Your task to perform on an android device: change keyboard looks Image 0: 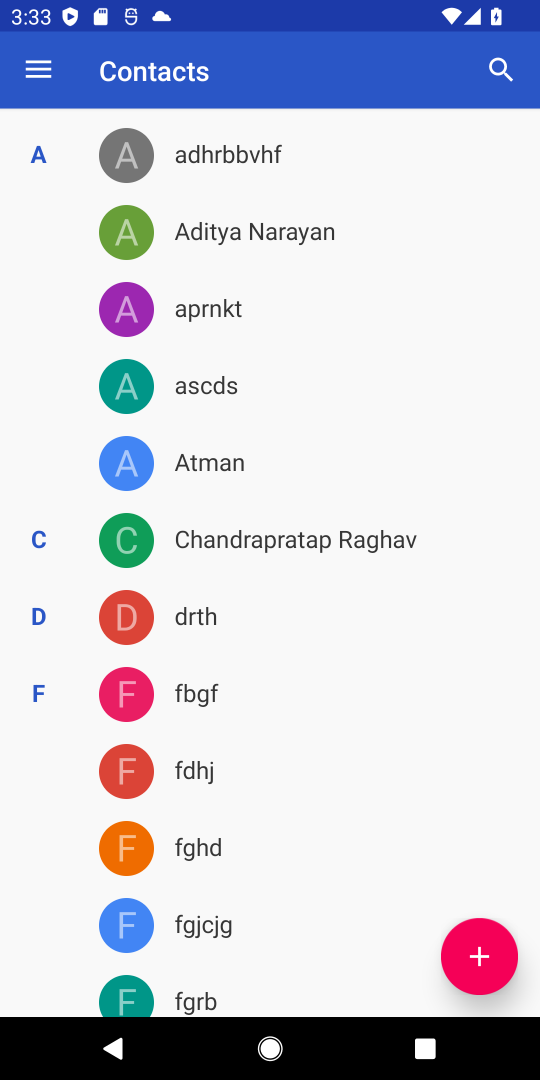
Step 0: press home button
Your task to perform on an android device: change keyboard looks Image 1: 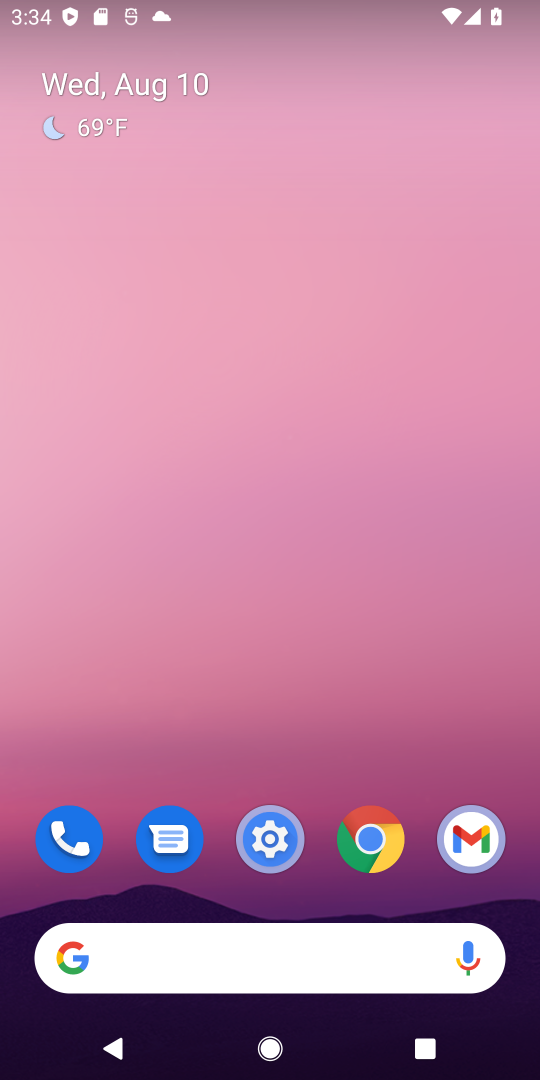
Step 1: click (275, 813)
Your task to perform on an android device: change keyboard looks Image 2: 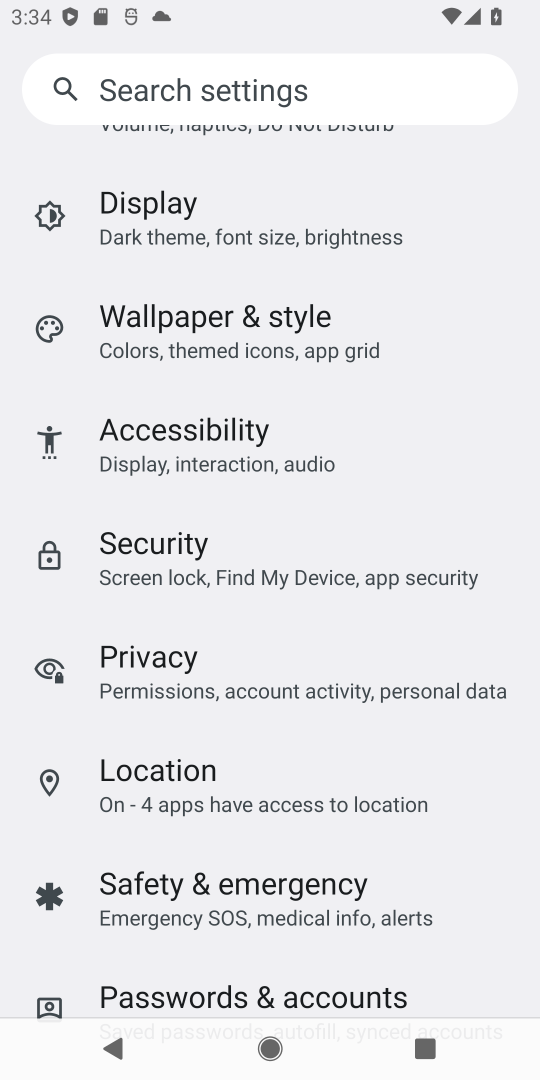
Step 2: drag from (329, 916) to (416, 316)
Your task to perform on an android device: change keyboard looks Image 3: 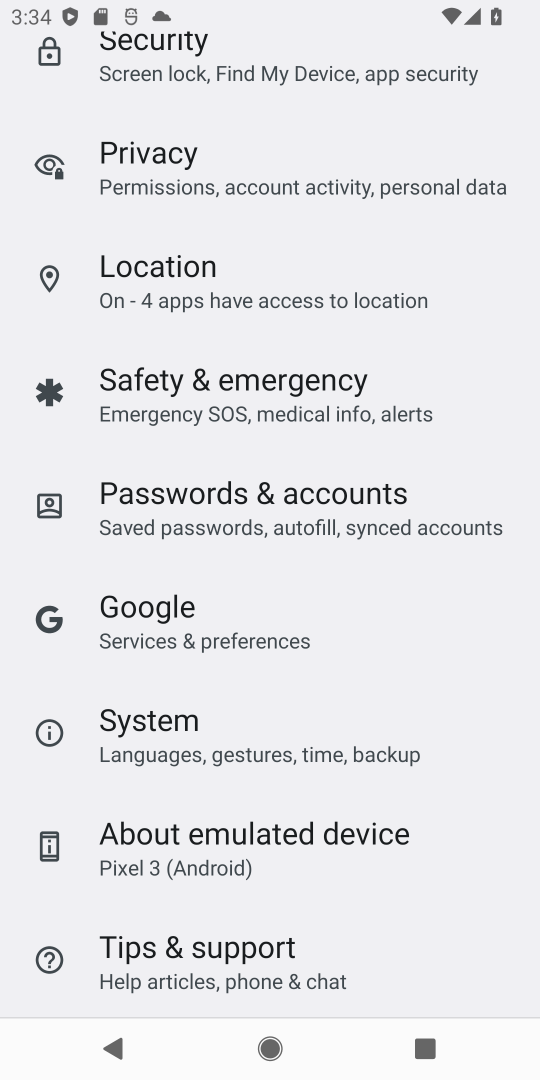
Step 3: click (243, 745)
Your task to perform on an android device: change keyboard looks Image 4: 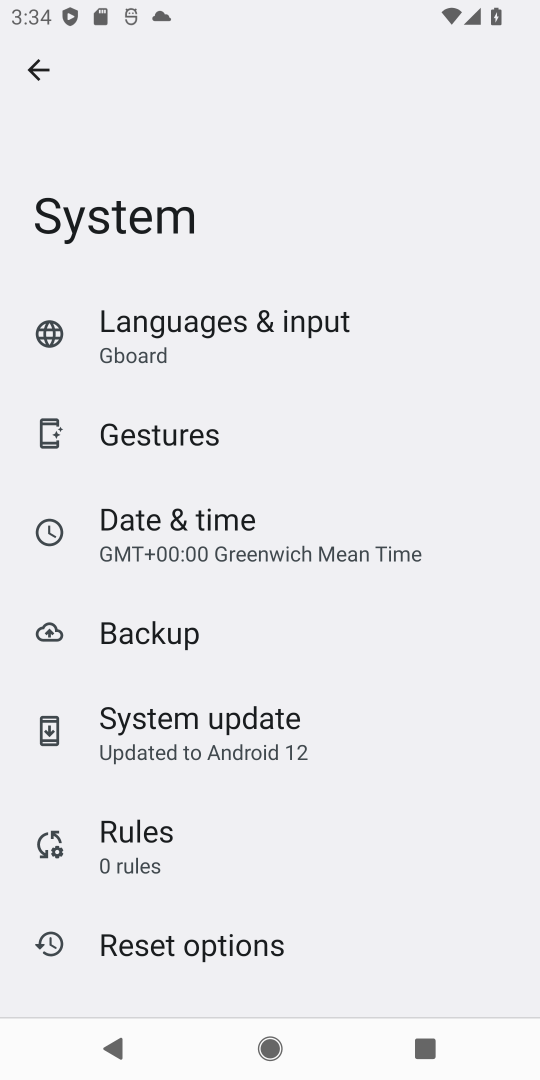
Step 4: click (235, 334)
Your task to perform on an android device: change keyboard looks Image 5: 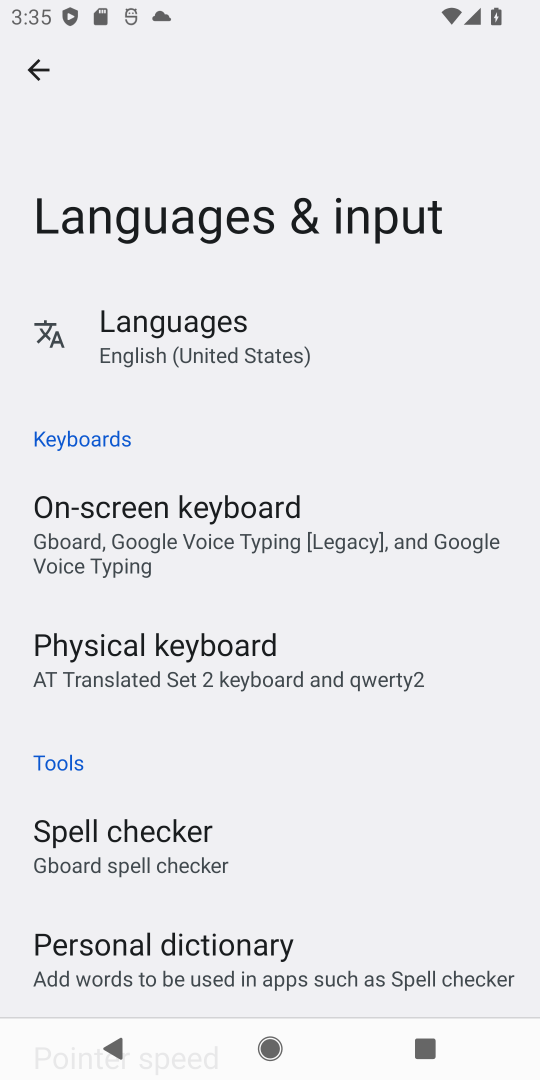
Step 5: click (213, 528)
Your task to perform on an android device: change keyboard looks Image 6: 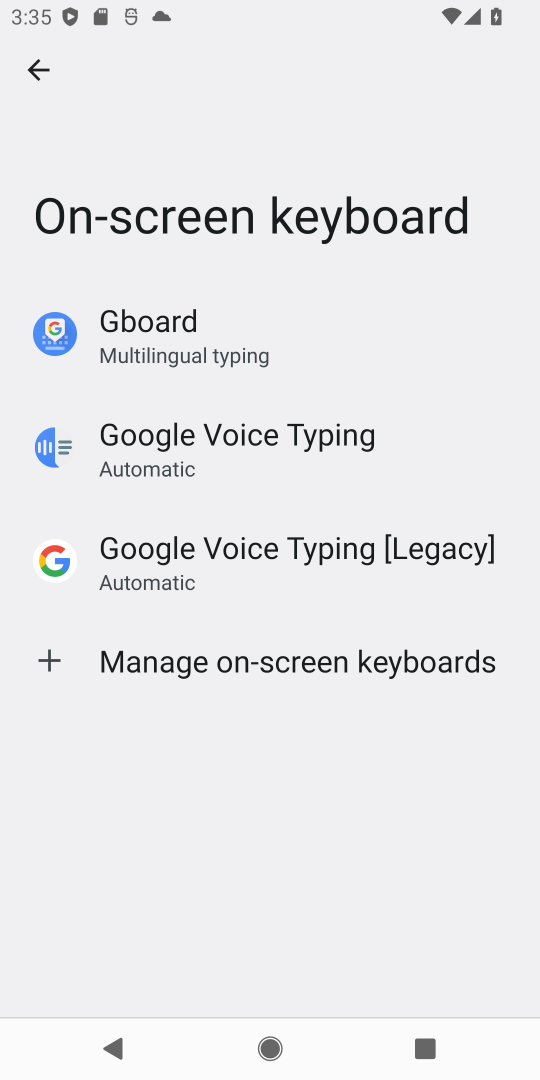
Step 6: click (157, 334)
Your task to perform on an android device: change keyboard looks Image 7: 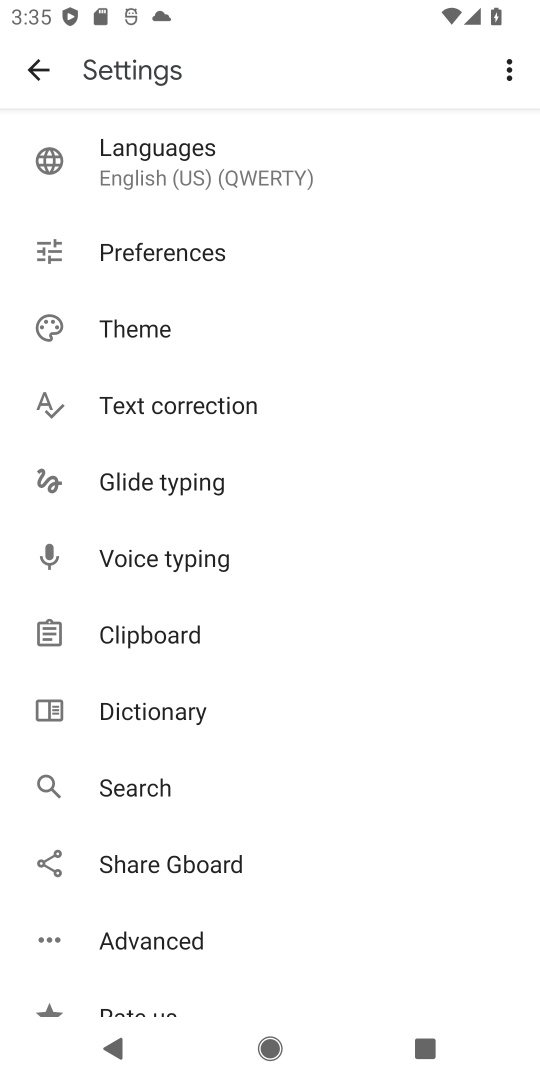
Step 7: click (153, 325)
Your task to perform on an android device: change keyboard looks Image 8: 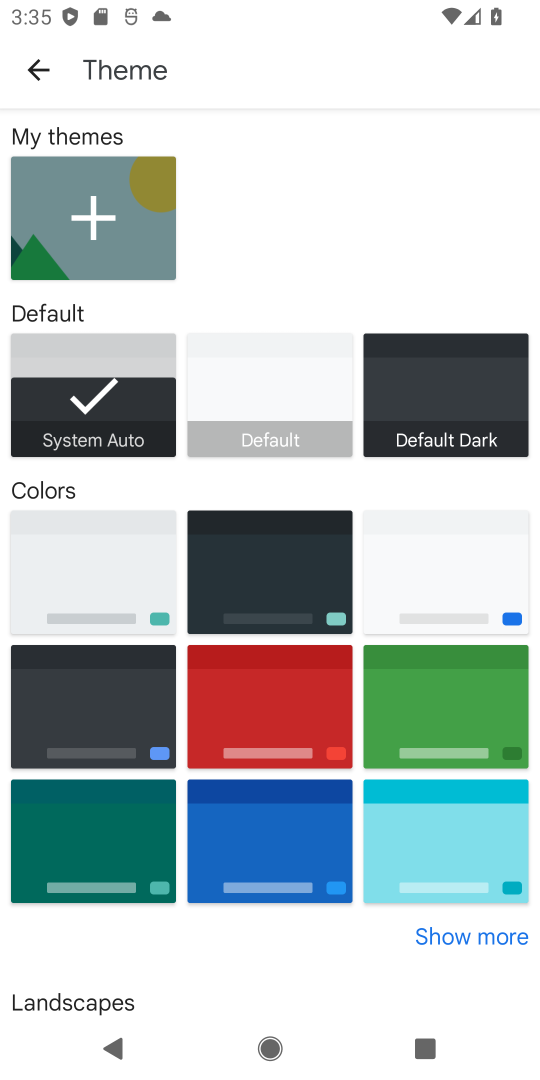
Step 8: click (427, 675)
Your task to perform on an android device: change keyboard looks Image 9: 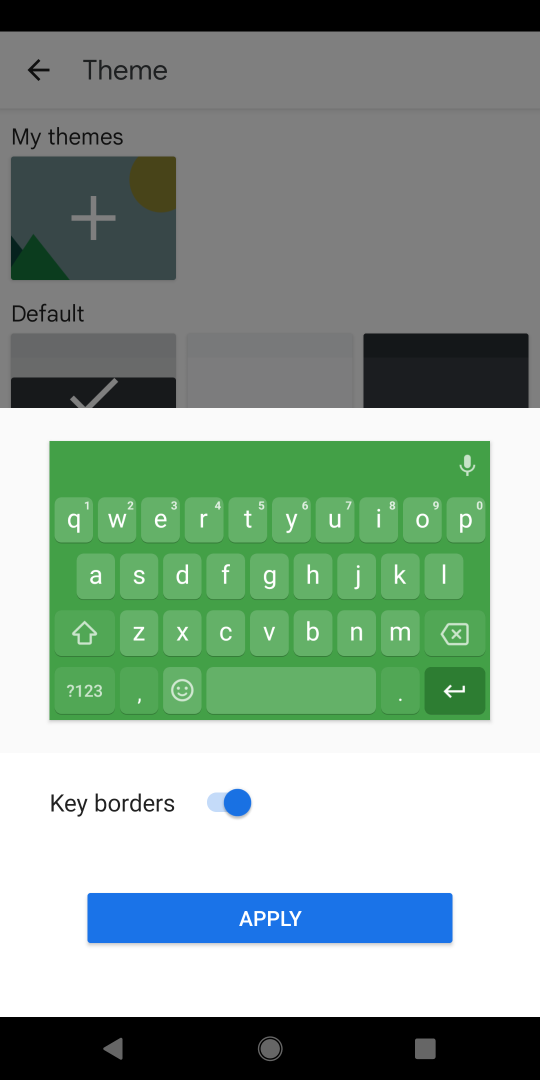
Step 9: click (299, 916)
Your task to perform on an android device: change keyboard looks Image 10: 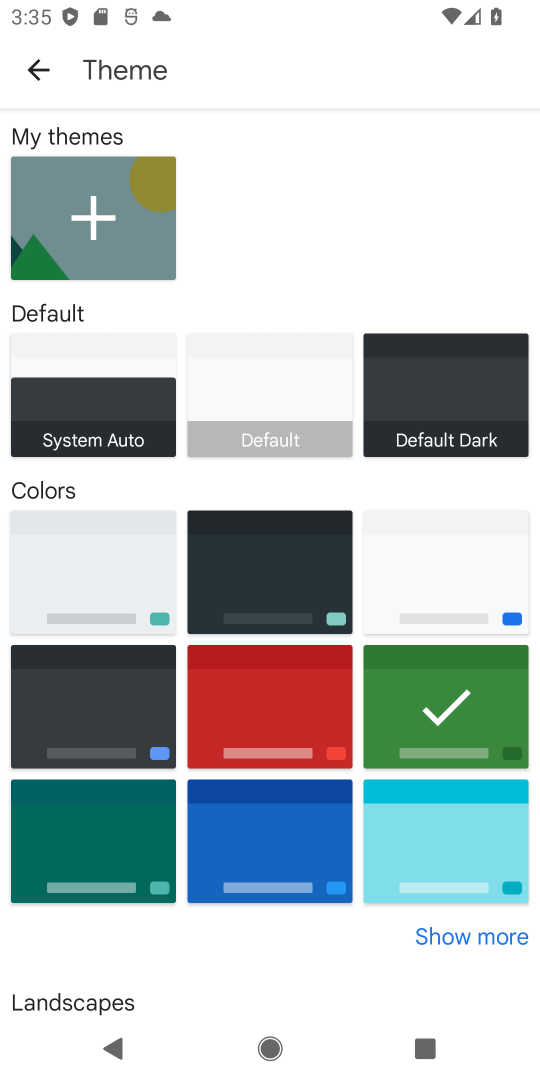
Step 10: task complete